Your task to perform on an android device: open a bookmark in the chrome app Image 0: 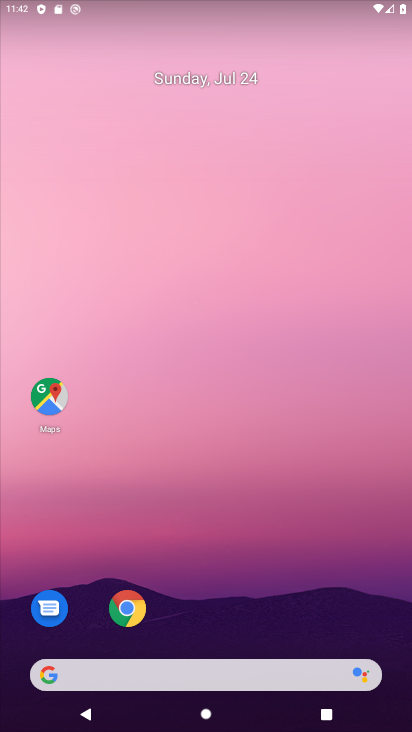
Step 0: click (117, 609)
Your task to perform on an android device: open a bookmark in the chrome app Image 1: 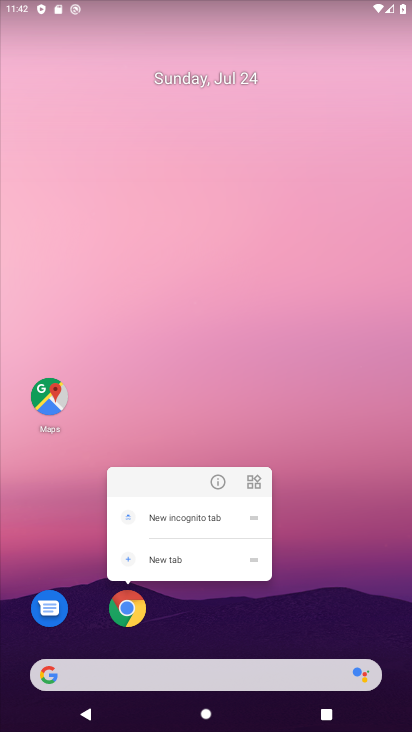
Step 1: click (118, 608)
Your task to perform on an android device: open a bookmark in the chrome app Image 2: 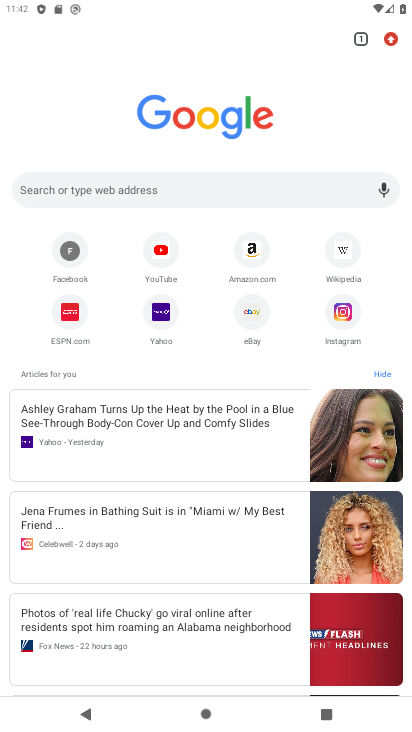
Step 2: click (393, 39)
Your task to perform on an android device: open a bookmark in the chrome app Image 3: 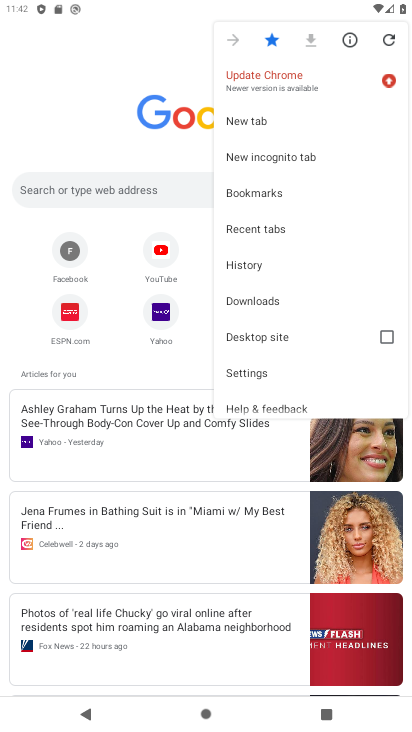
Step 3: click (291, 185)
Your task to perform on an android device: open a bookmark in the chrome app Image 4: 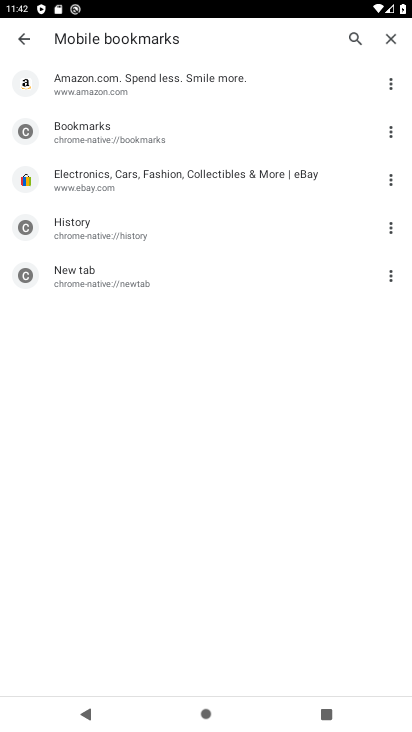
Step 4: drag from (50, 246) to (59, 126)
Your task to perform on an android device: open a bookmark in the chrome app Image 5: 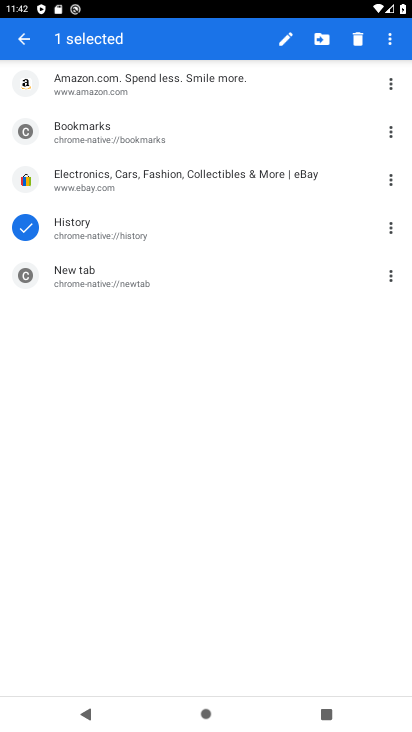
Step 5: click (85, 87)
Your task to perform on an android device: open a bookmark in the chrome app Image 6: 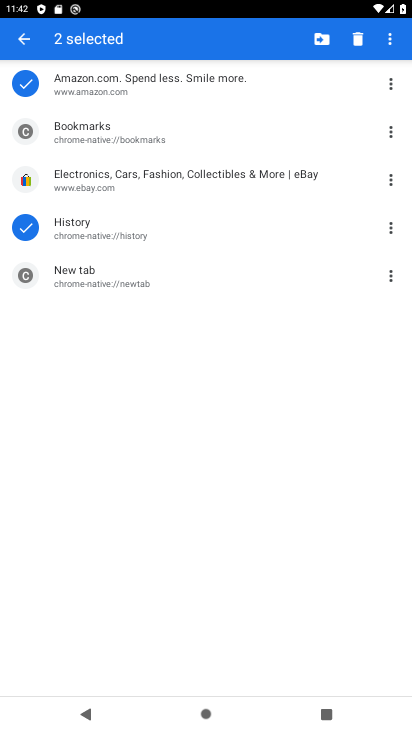
Step 6: click (174, 107)
Your task to perform on an android device: open a bookmark in the chrome app Image 7: 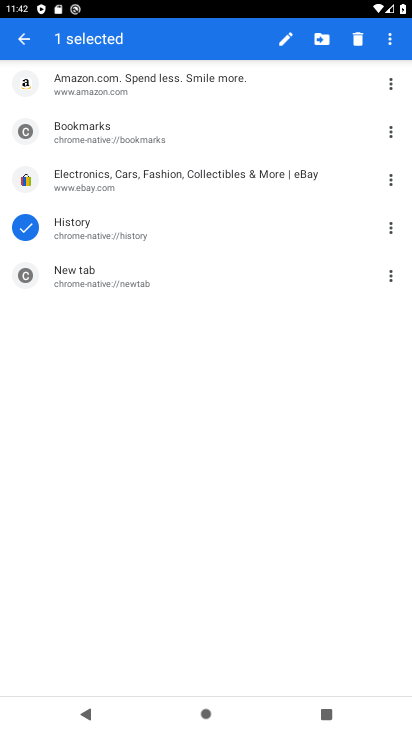
Step 7: press back button
Your task to perform on an android device: open a bookmark in the chrome app Image 8: 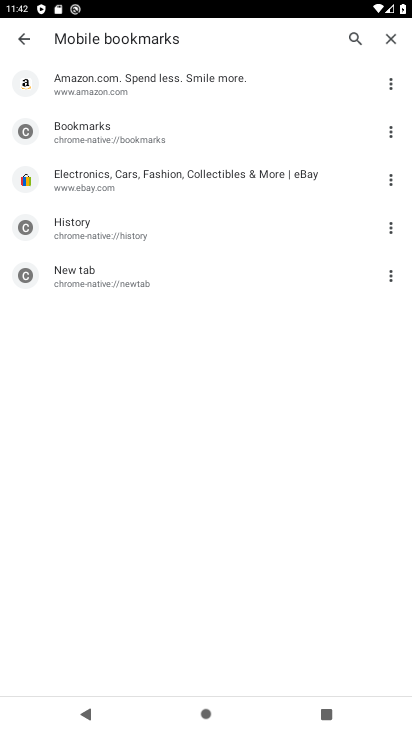
Step 8: click (168, 106)
Your task to perform on an android device: open a bookmark in the chrome app Image 9: 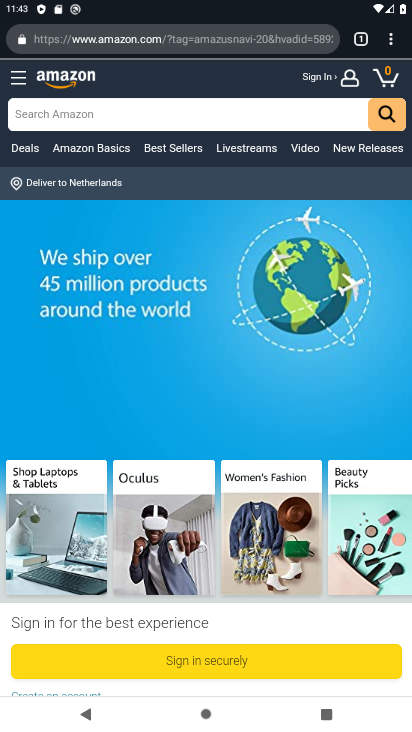
Step 9: task complete